Your task to perform on an android device: show emergency info Image 0: 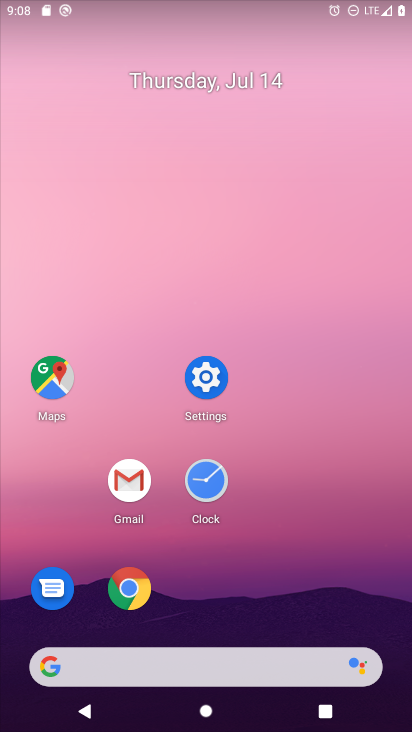
Step 0: click (201, 376)
Your task to perform on an android device: show emergency info Image 1: 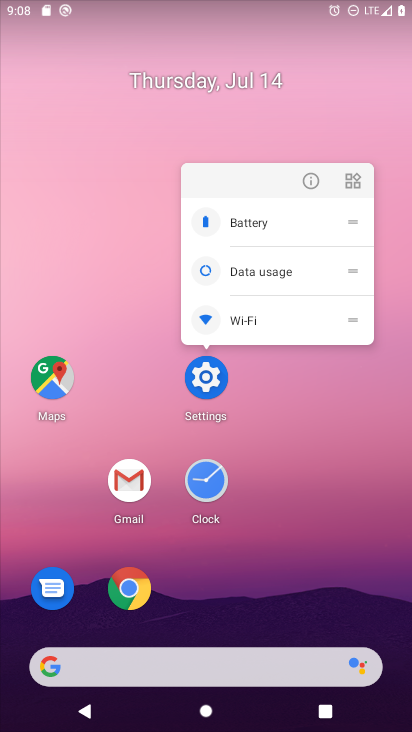
Step 1: click (198, 376)
Your task to perform on an android device: show emergency info Image 2: 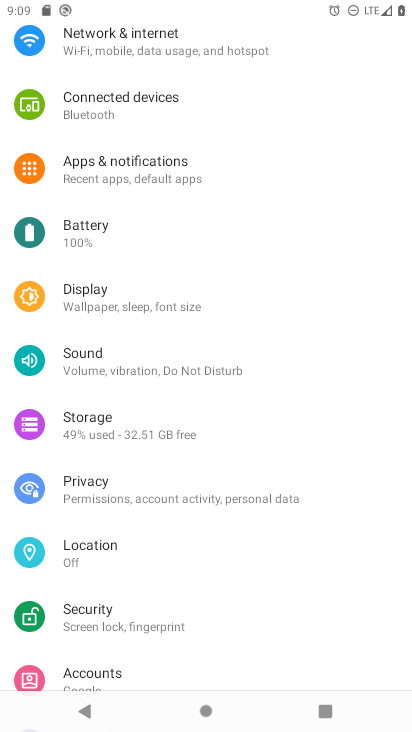
Step 2: drag from (238, 599) to (242, 256)
Your task to perform on an android device: show emergency info Image 3: 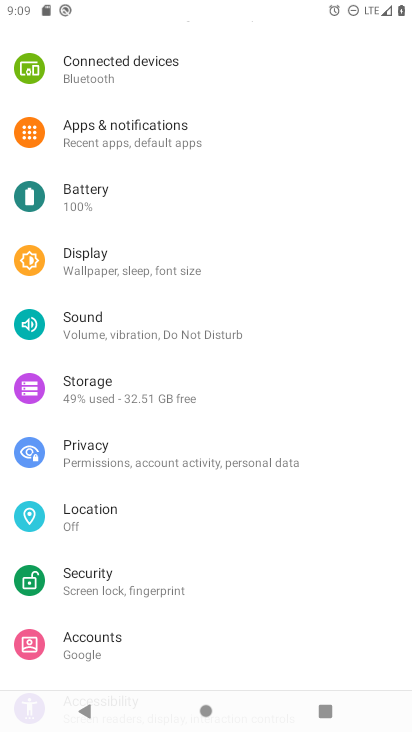
Step 3: drag from (273, 628) to (267, 193)
Your task to perform on an android device: show emergency info Image 4: 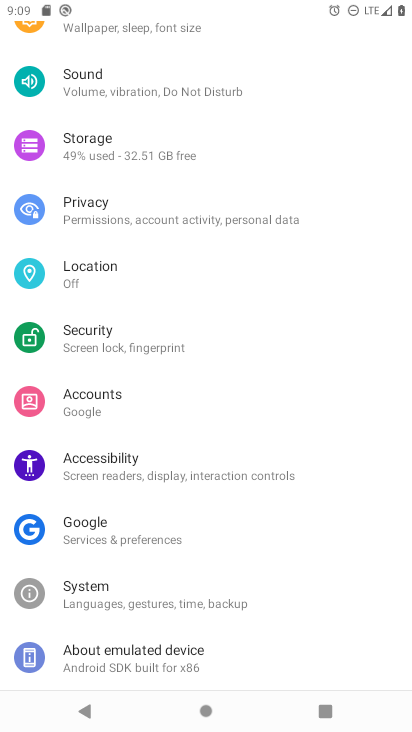
Step 4: click (148, 649)
Your task to perform on an android device: show emergency info Image 5: 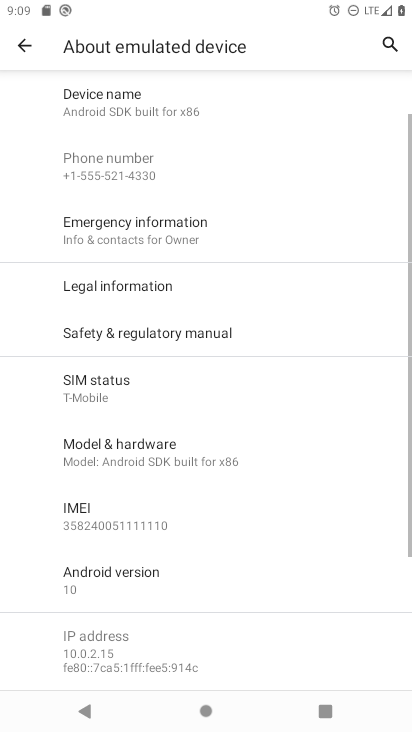
Step 5: click (145, 226)
Your task to perform on an android device: show emergency info Image 6: 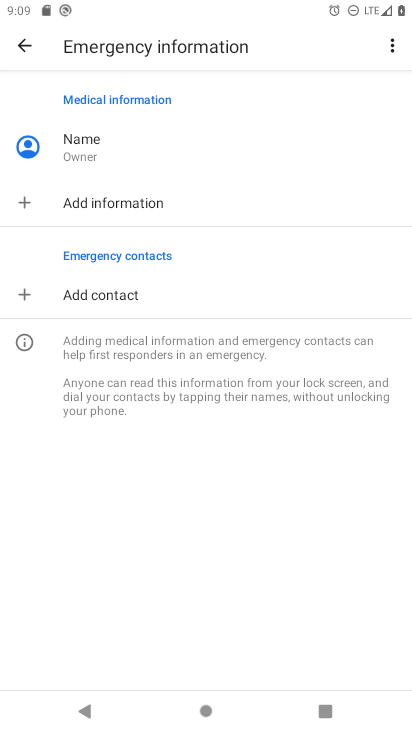
Step 6: task complete